Your task to perform on an android device: Open settings on Google Maps Image 0: 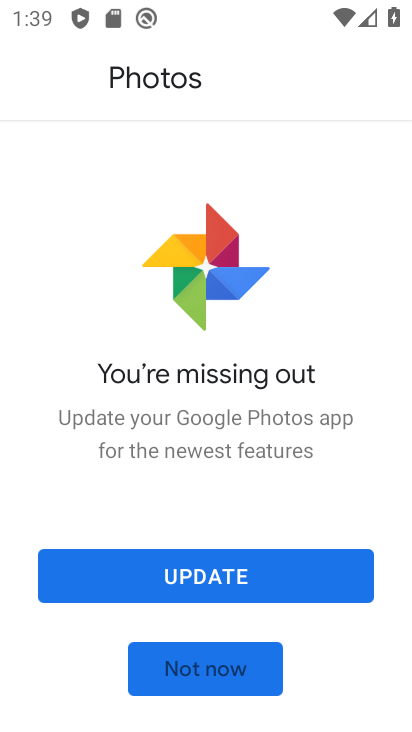
Step 0: press home button
Your task to perform on an android device: Open settings on Google Maps Image 1: 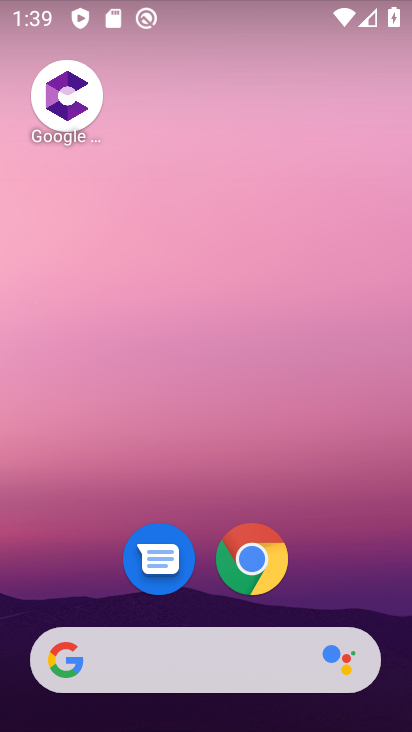
Step 1: drag from (202, 560) to (226, 51)
Your task to perform on an android device: Open settings on Google Maps Image 2: 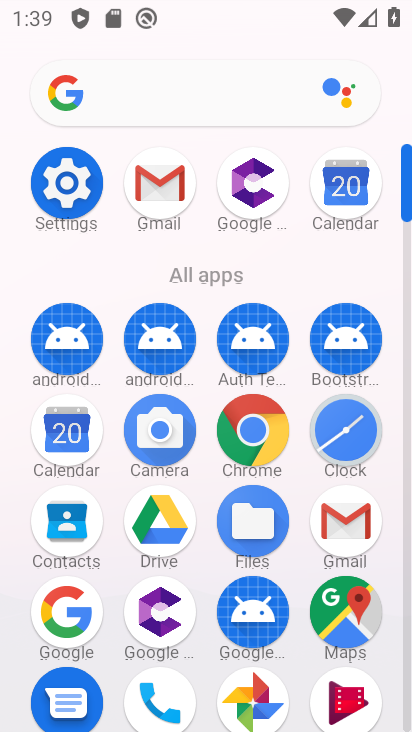
Step 2: click (48, 205)
Your task to perform on an android device: Open settings on Google Maps Image 3: 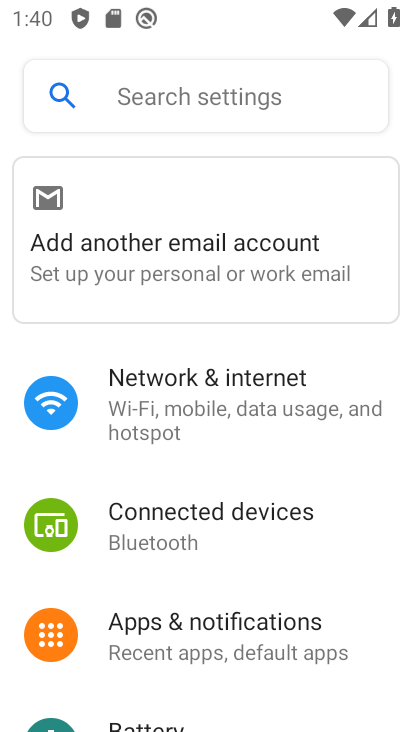
Step 3: press home button
Your task to perform on an android device: Open settings on Google Maps Image 4: 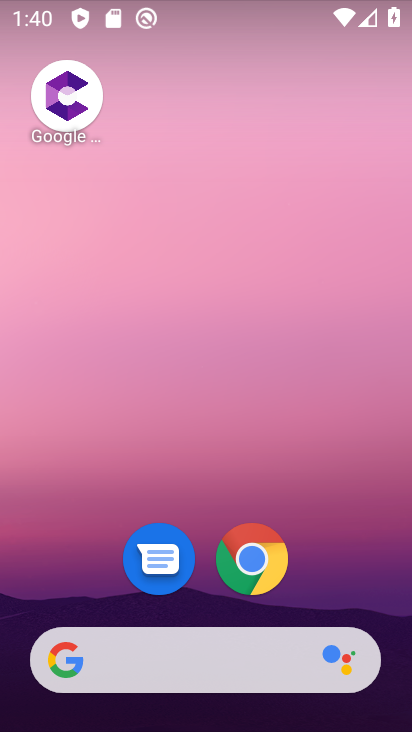
Step 4: drag from (217, 502) to (251, 2)
Your task to perform on an android device: Open settings on Google Maps Image 5: 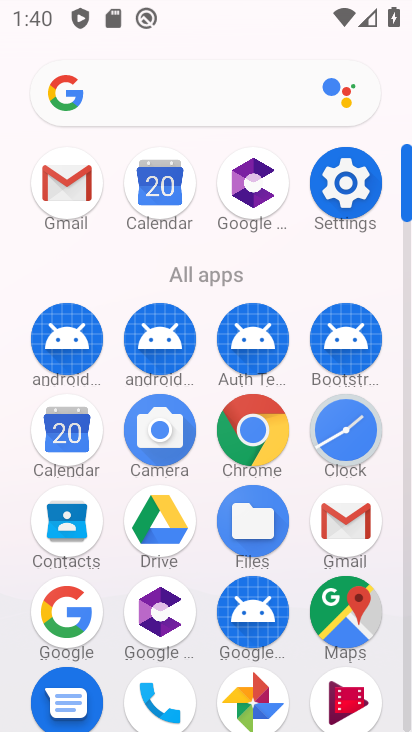
Step 5: click (327, 631)
Your task to perform on an android device: Open settings on Google Maps Image 6: 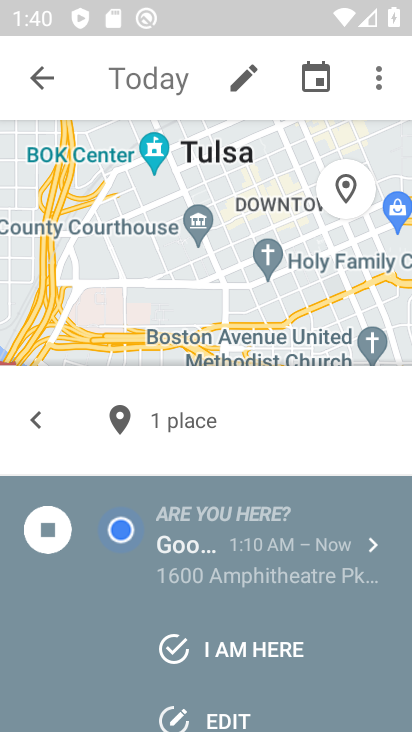
Step 6: click (53, 81)
Your task to perform on an android device: Open settings on Google Maps Image 7: 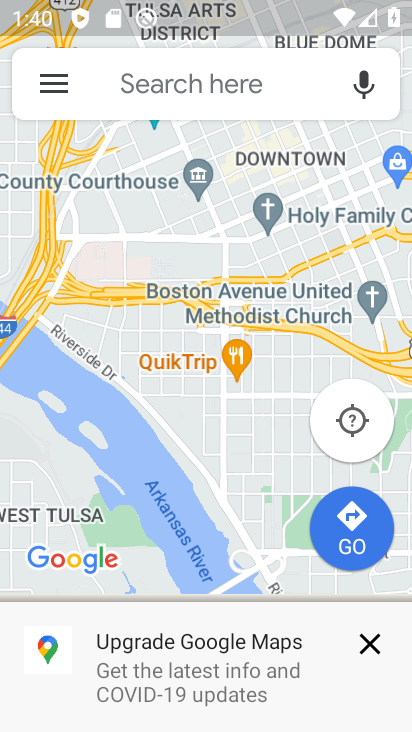
Step 7: click (53, 82)
Your task to perform on an android device: Open settings on Google Maps Image 8: 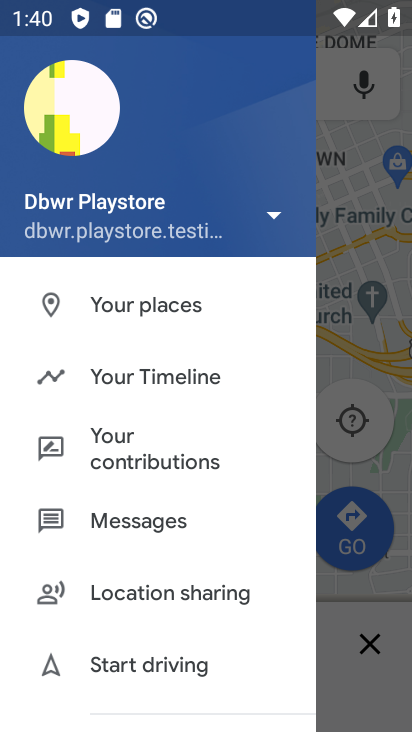
Step 8: drag from (153, 610) to (163, 237)
Your task to perform on an android device: Open settings on Google Maps Image 9: 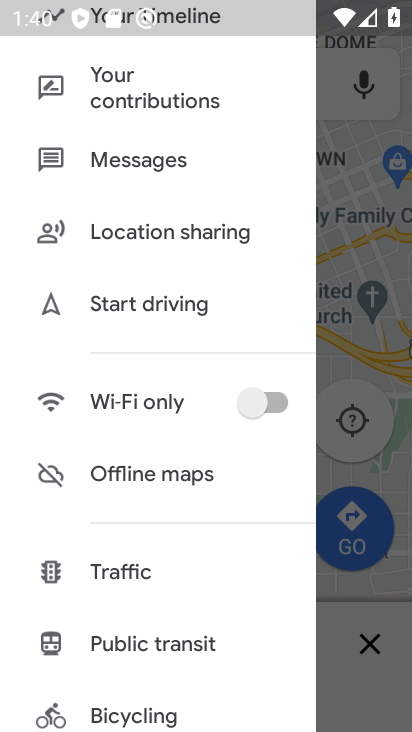
Step 9: drag from (170, 627) to (144, 298)
Your task to perform on an android device: Open settings on Google Maps Image 10: 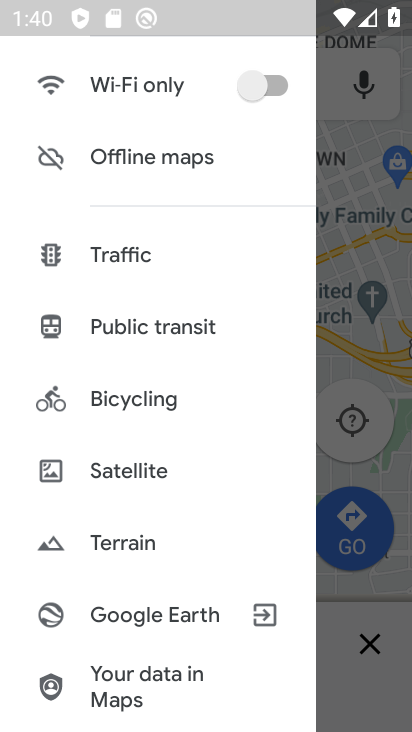
Step 10: drag from (146, 558) to (148, 271)
Your task to perform on an android device: Open settings on Google Maps Image 11: 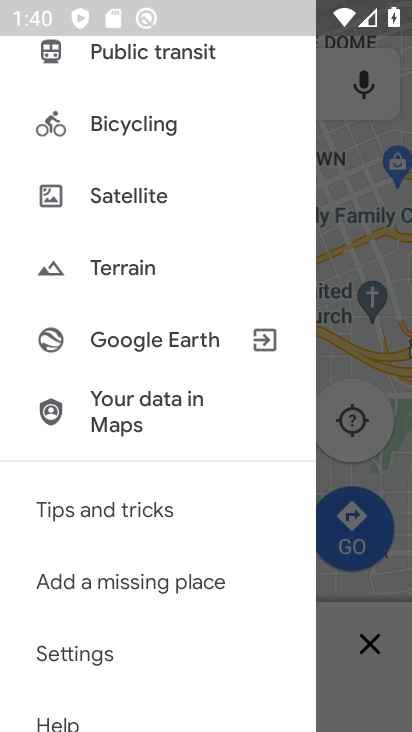
Step 11: click (95, 655)
Your task to perform on an android device: Open settings on Google Maps Image 12: 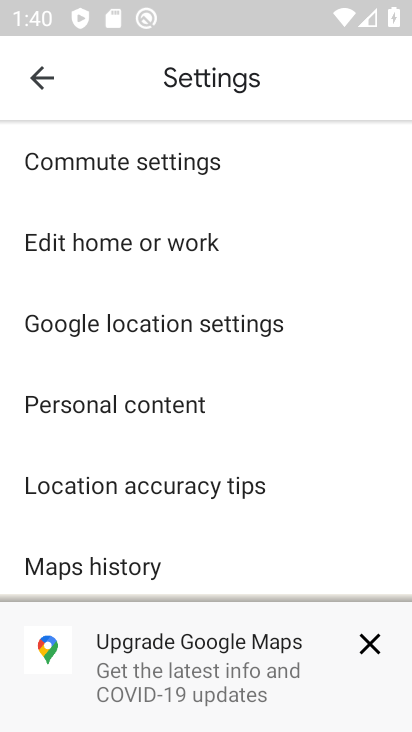
Step 12: task complete